Your task to perform on an android device: Open my contact list Image 0: 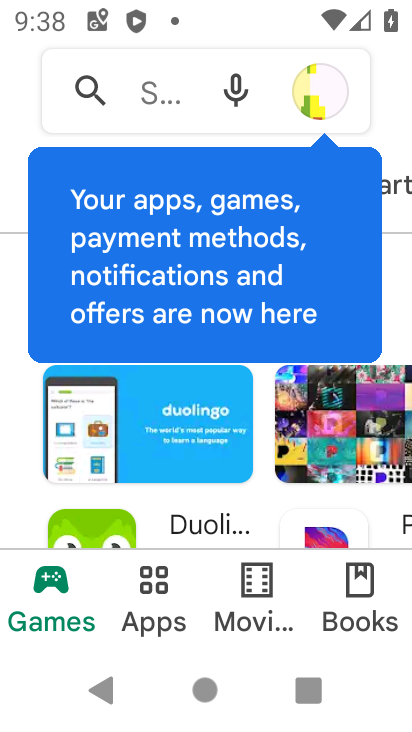
Step 0: press home button
Your task to perform on an android device: Open my contact list Image 1: 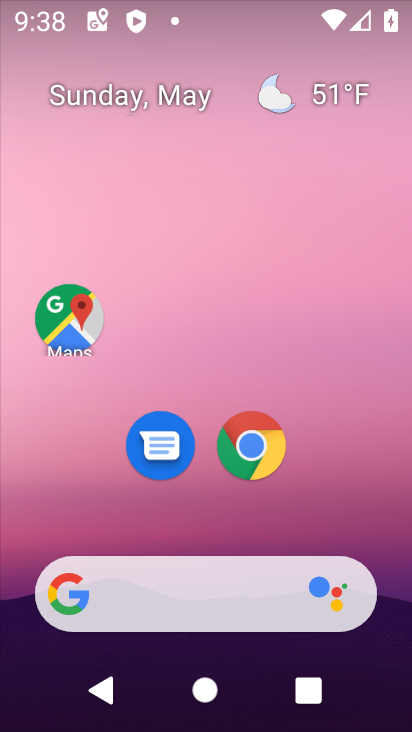
Step 1: drag from (229, 556) to (274, 29)
Your task to perform on an android device: Open my contact list Image 2: 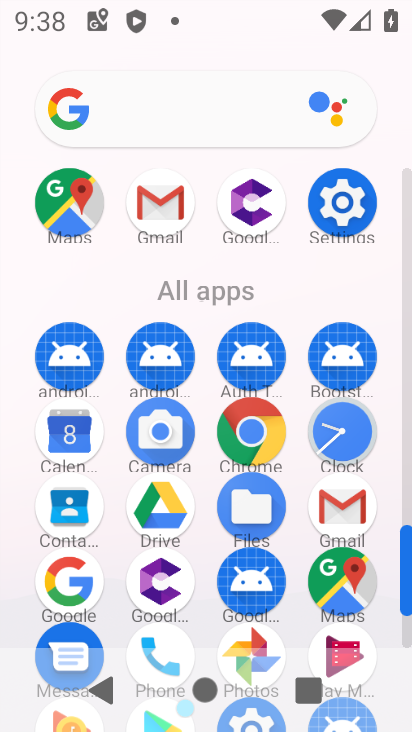
Step 2: drag from (218, 616) to (283, 327)
Your task to perform on an android device: Open my contact list Image 3: 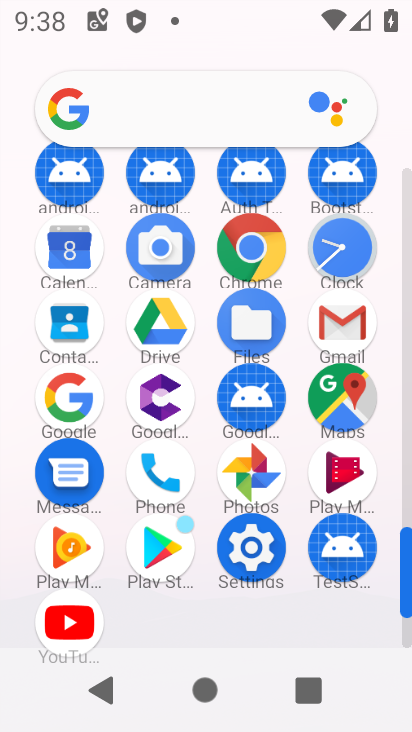
Step 3: click (76, 336)
Your task to perform on an android device: Open my contact list Image 4: 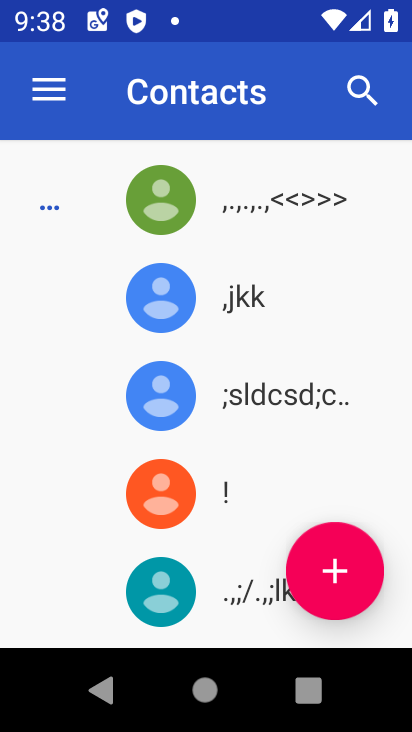
Step 4: task complete